Your task to perform on an android device: Open Google Image 0: 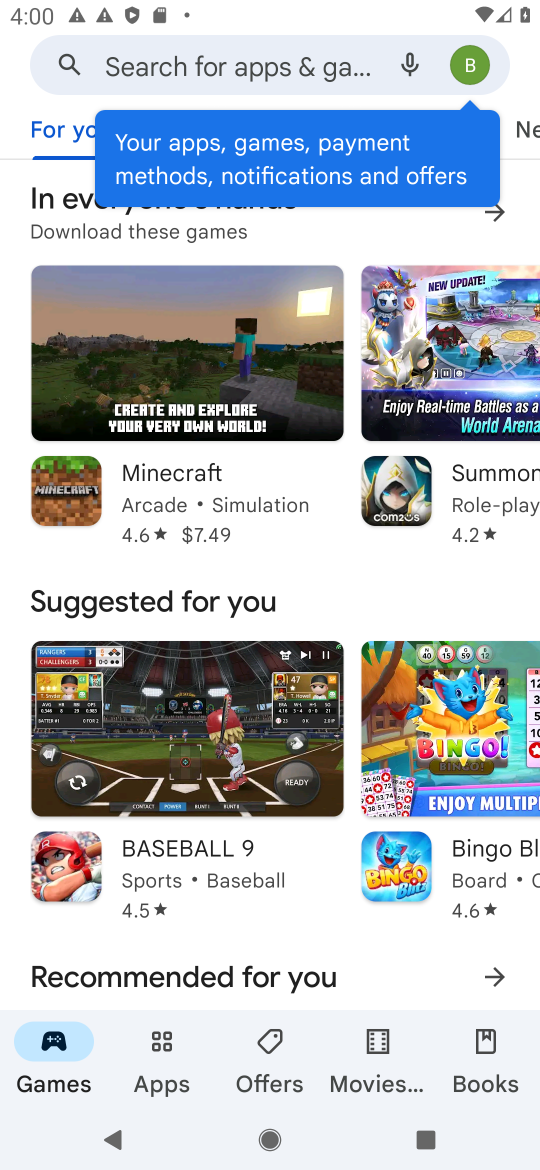
Step 0: press home button
Your task to perform on an android device: Open Google Image 1: 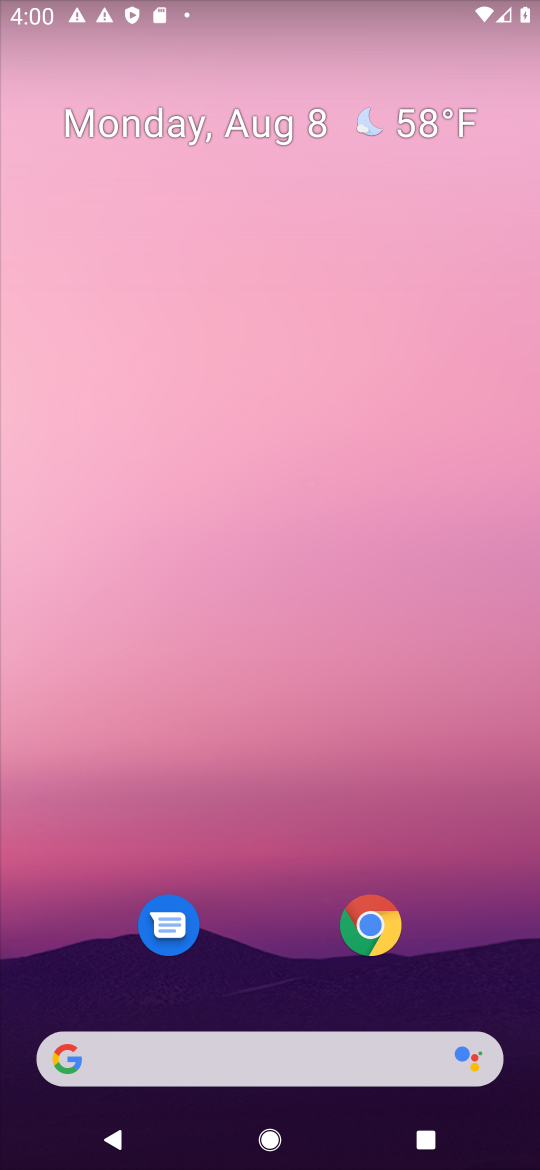
Step 1: drag from (256, 1016) to (291, 129)
Your task to perform on an android device: Open Google Image 2: 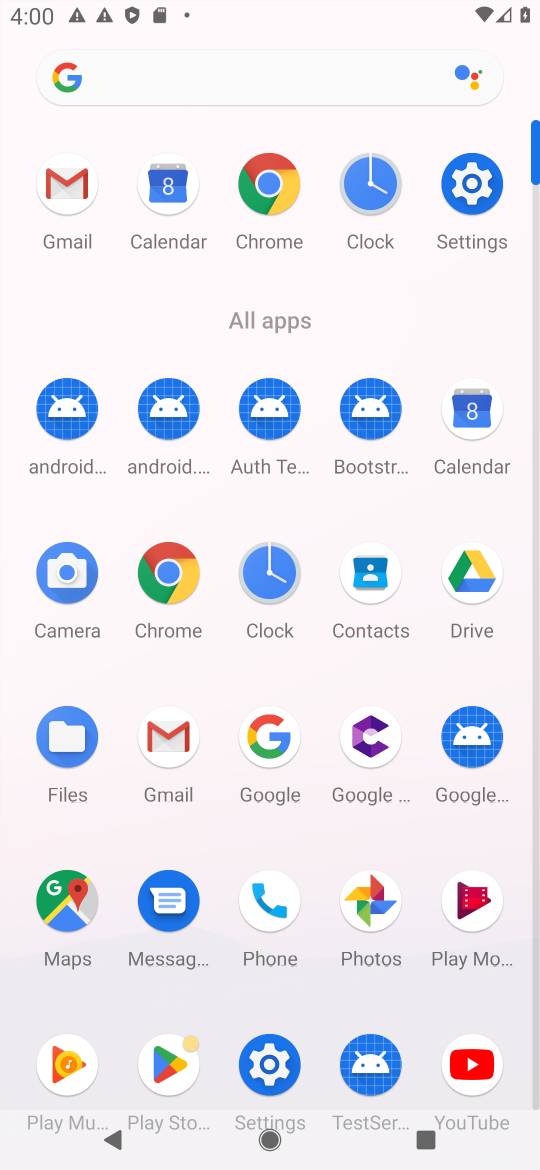
Step 2: click (276, 729)
Your task to perform on an android device: Open Google Image 3: 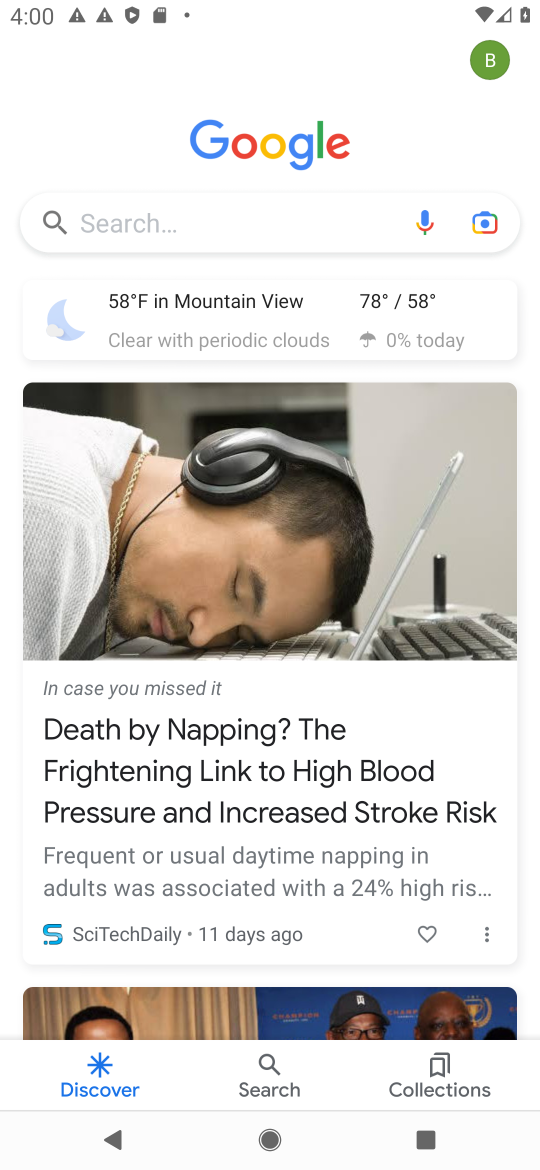
Step 3: task complete